Your task to perform on an android device: turn notification dots off Image 0: 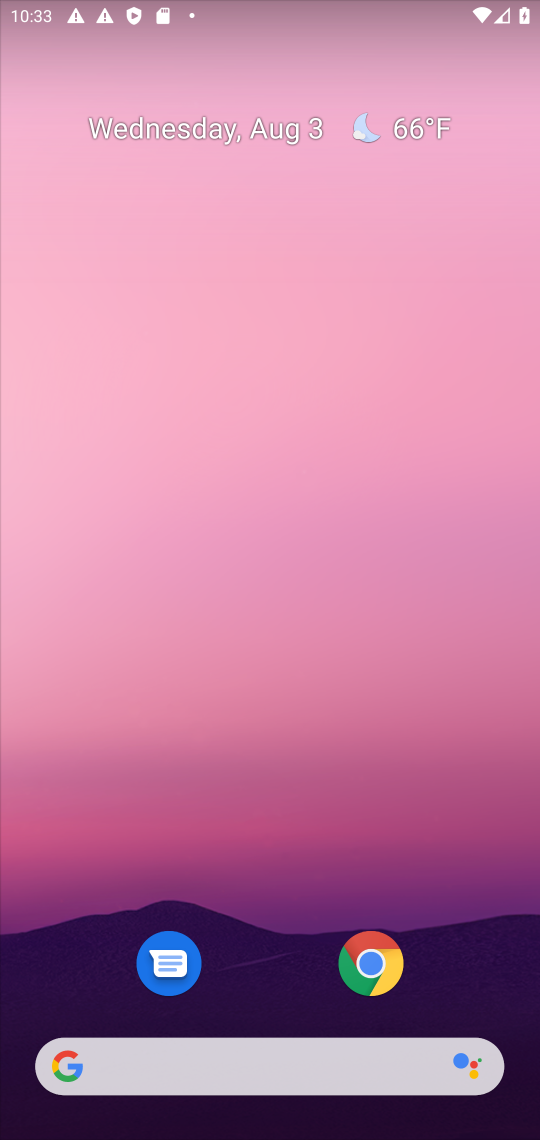
Step 0: drag from (461, 988) to (459, 254)
Your task to perform on an android device: turn notification dots off Image 1: 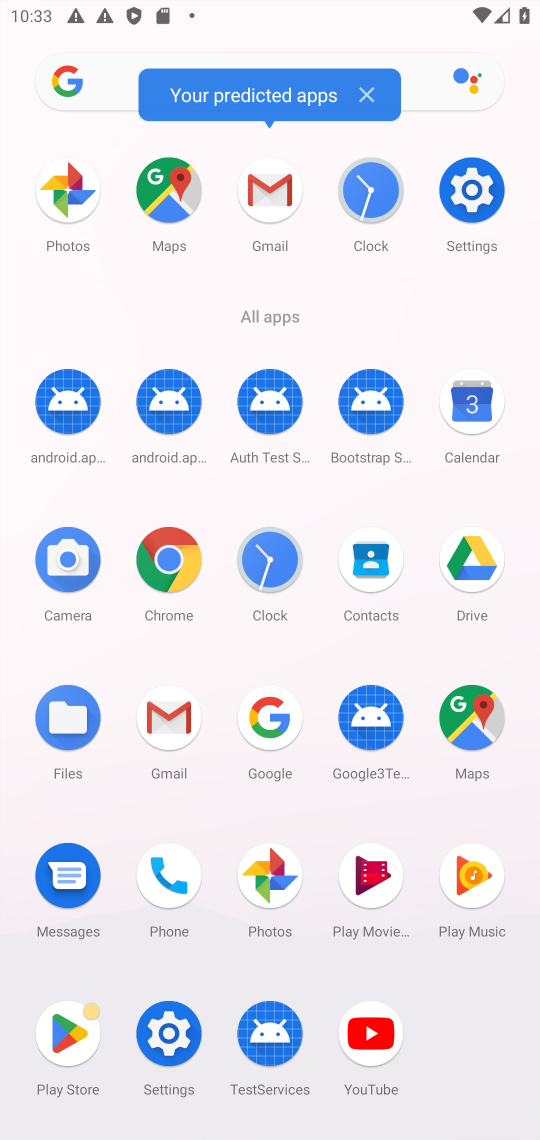
Step 1: click (186, 1018)
Your task to perform on an android device: turn notification dots off Image 2: 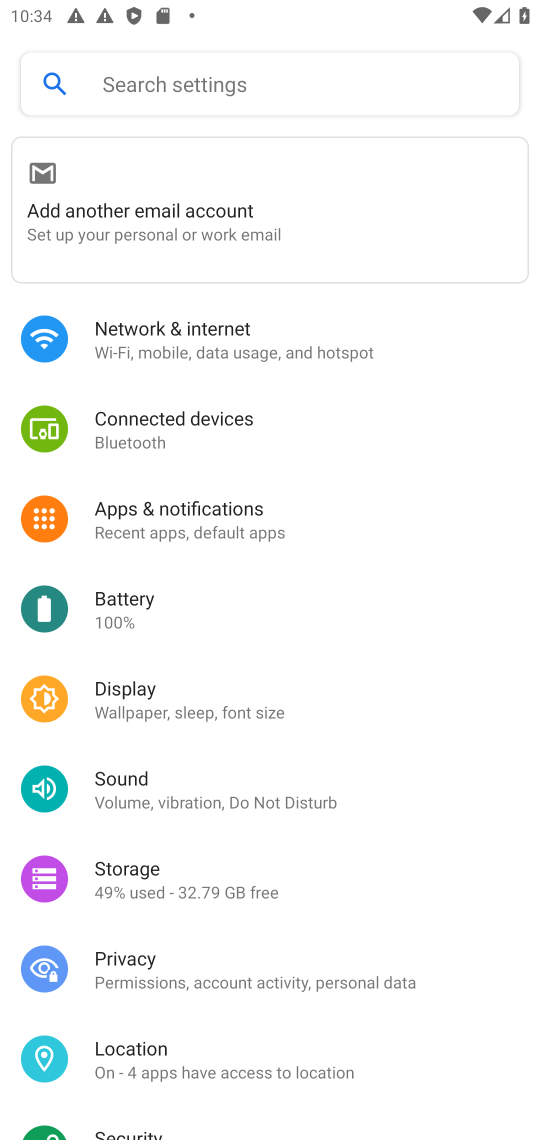
Step 2: click (235, 512)
Your task to perform on an android device: turn notification dots off Image 3: 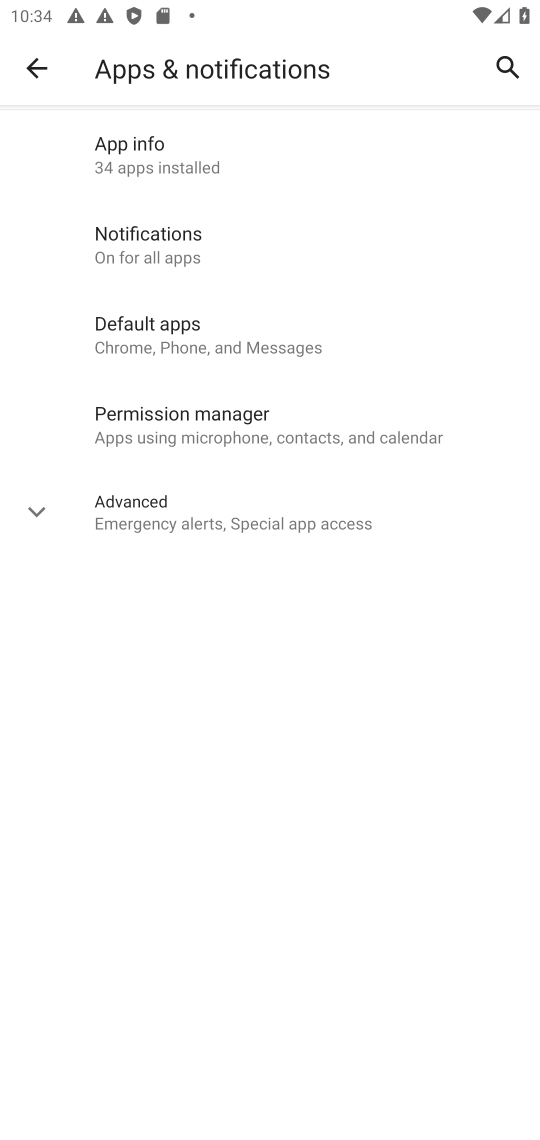
Step 3: click (241, 245)
Your task to perform on an android device: turn notification dots off Image 4: 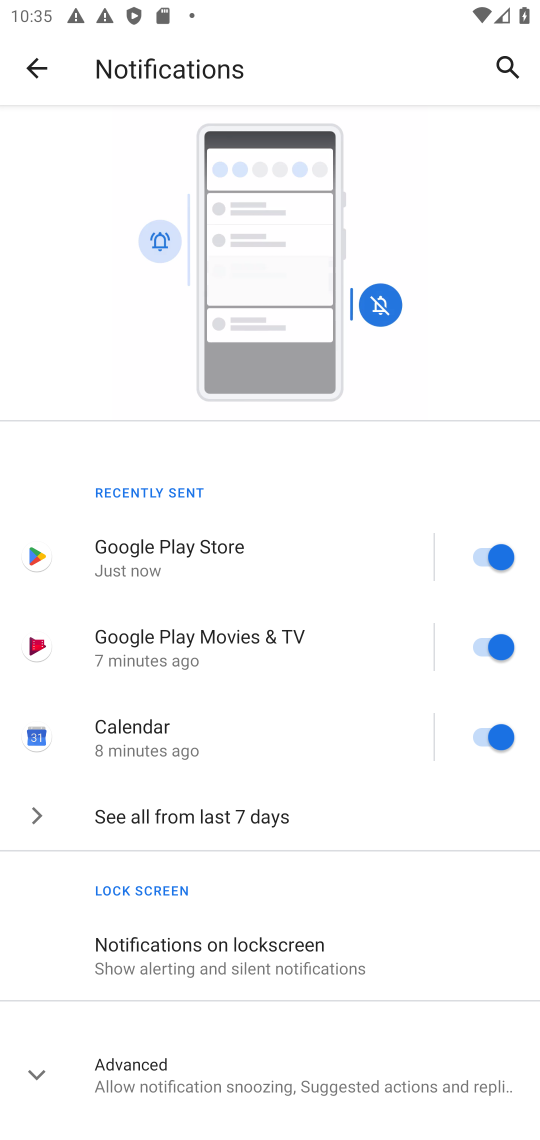
Step 4: click (254, 1078)
Your task to perform on an android device: turn notification dots off Image 5: 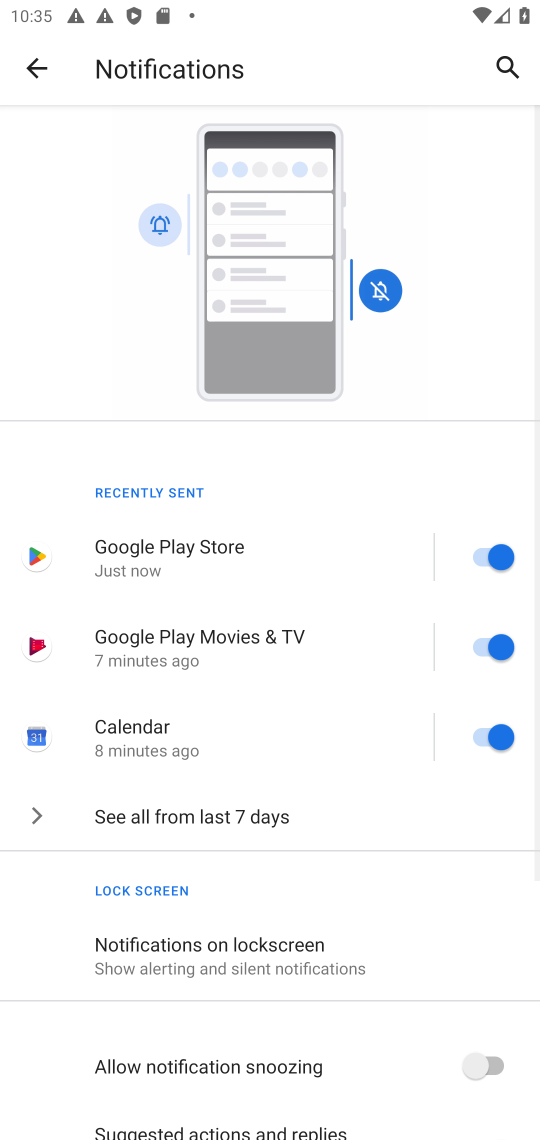
Step 5: drag from (272, 772) to (275, 696)
Your task to perform on an android device: turn notification dots off Image 6: 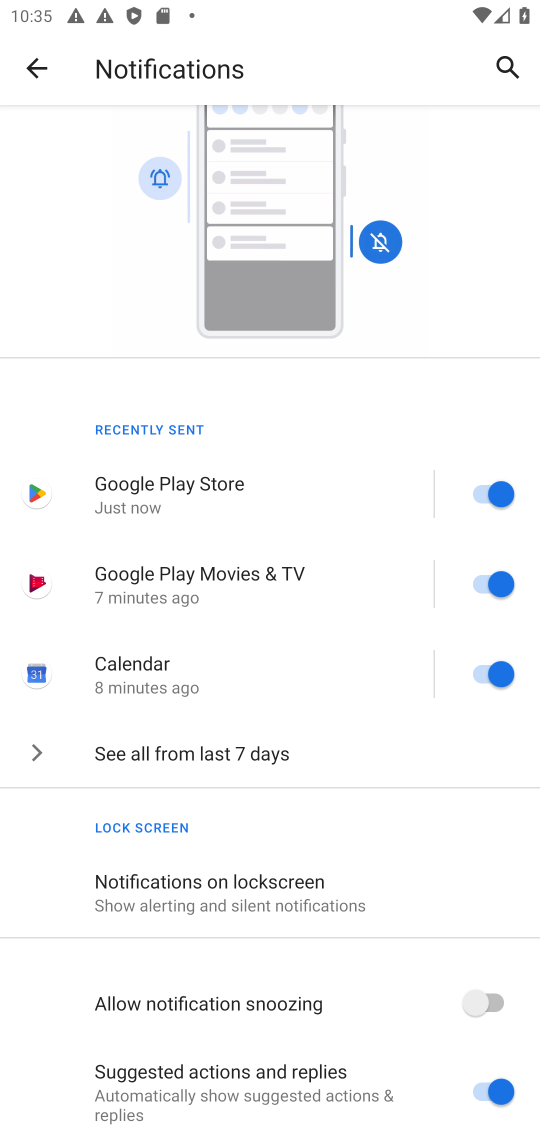
Step 6: drag from (379, 969) to (391, 589)
Your task to perform on an android device: turn notification dots off Image 7: 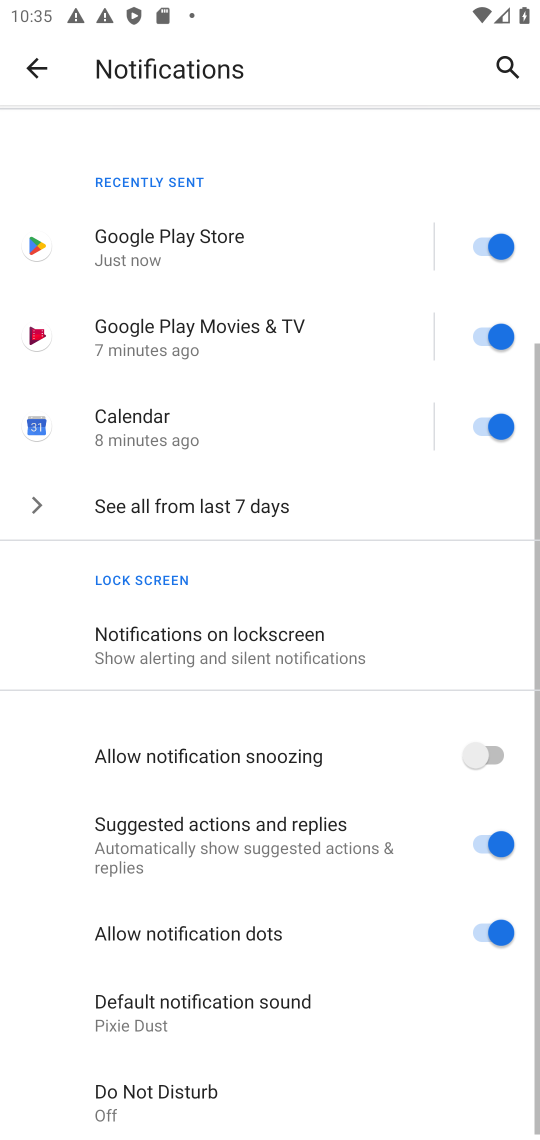
Step 7: click (495, 925)
Your task to perform on an android device: turn notification dots off Image 8: 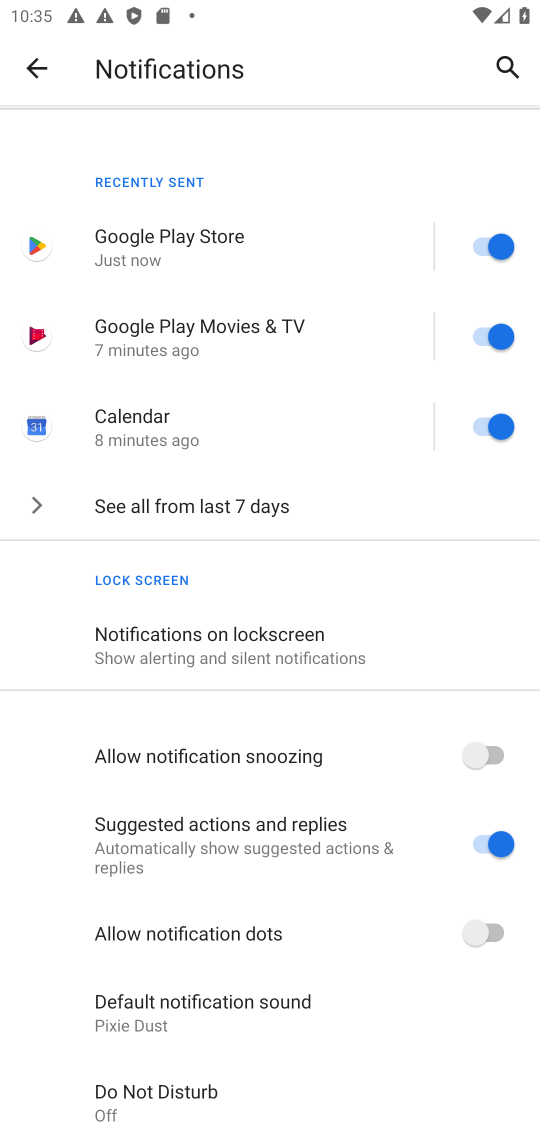
Step 8: task complete